Your task to perform on an android device: turn pop-ups on in chrome Image 0: 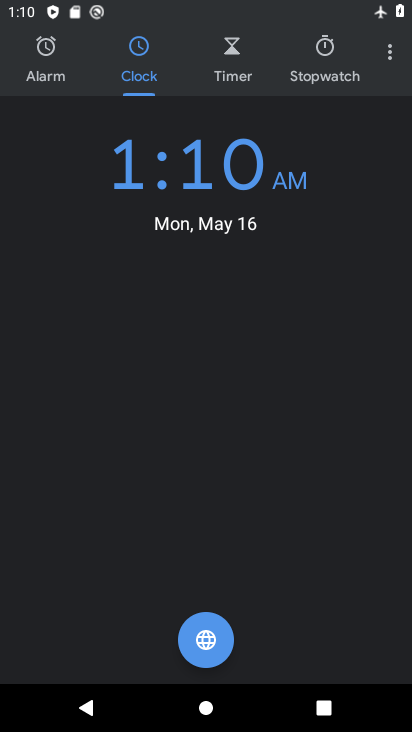
Step 0: press home button
Your task to perform on an android device: turn pop-ups on in chrome Image 1: 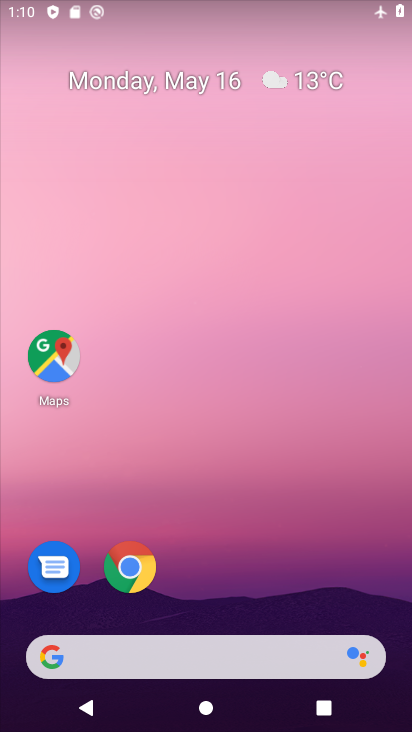
Step 1: click (136, 570)
Your task to perform on an android device: turn pop-ups on in chrome Image 2: 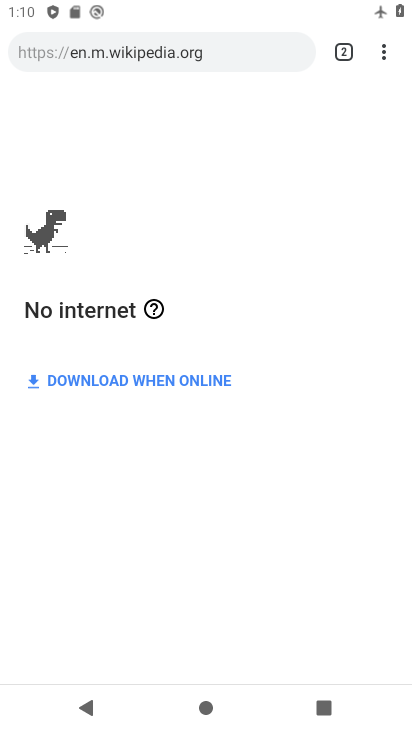
Step 2: click (378, 49)
Your task to perform on an android device: turn pop-ups on in chrome Image 3: 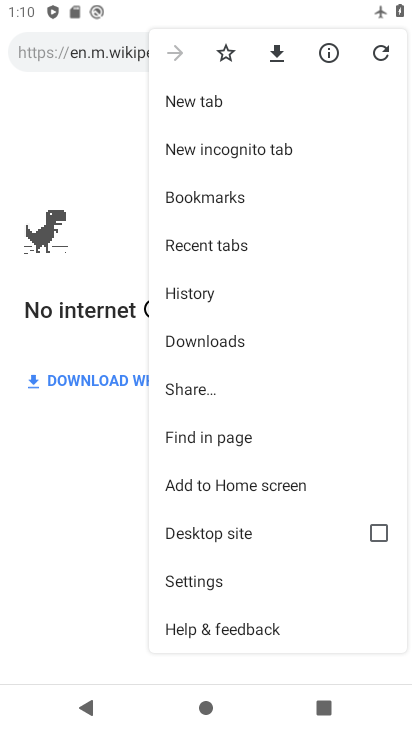
Step 3: click (210, 574)
Your task to perform on an android device: turn pop-ups on in chrome Image 4: 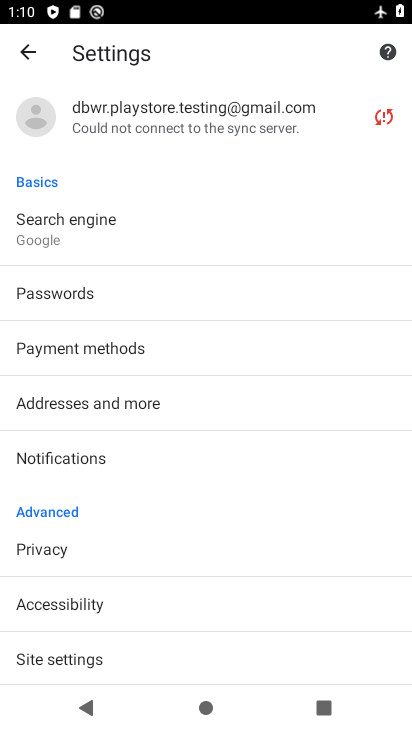
Step 4: drag from (214, 452) to (184, 67)
Your task to perform on an android device: turn pop-ups on in chrome Image 5: 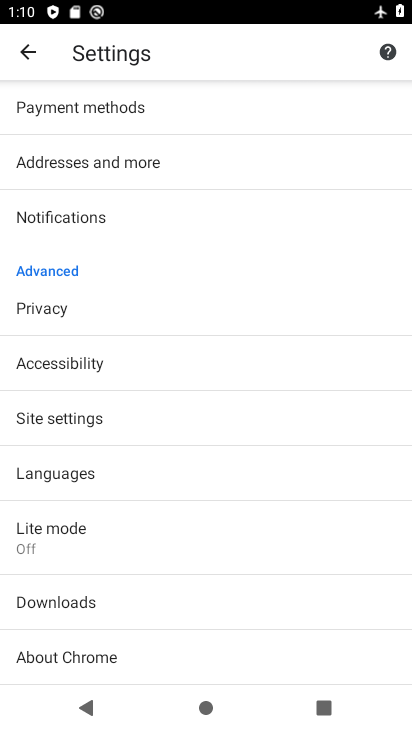
Step 5: click (75, 406)
Your task to perform on an android device: turn pop-ups on in chrome Image 6: 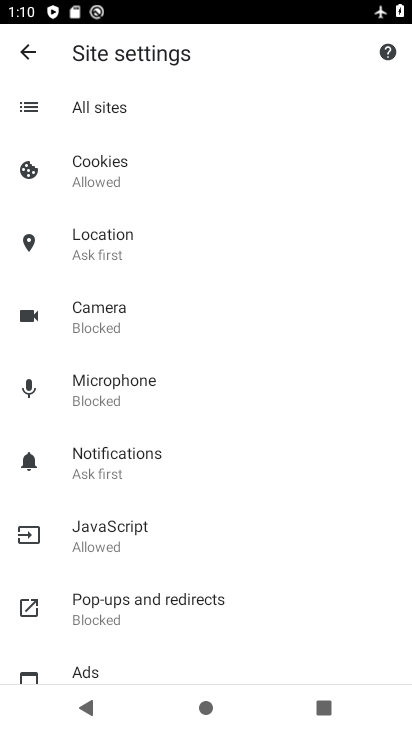
Step 6: click (171, 594)
Your task to perform on an android device: turn pop-ups on in chrome Image 7: 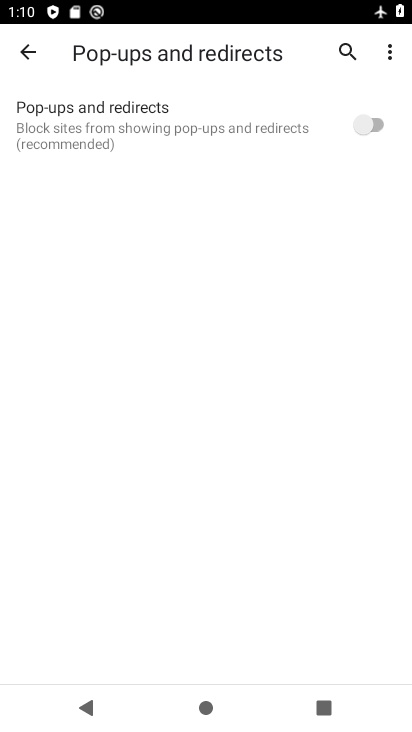
Step 7: click (366, 122)
Your task to perform on an android device: turn pop-ups on in chrome Image 8: 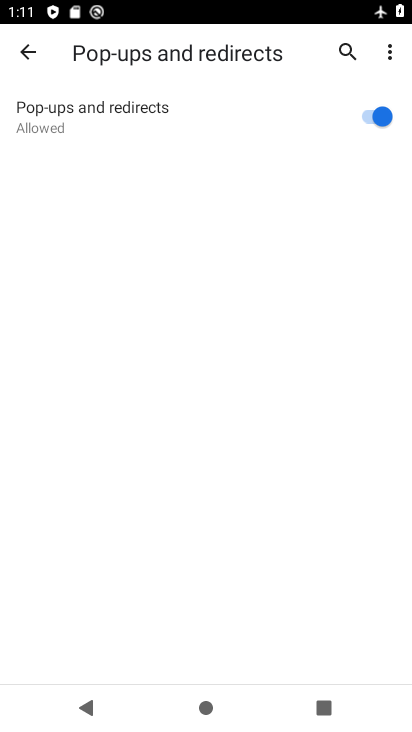
Step 8: task complete